Your task to perform on an android device: change text size in settings app Image 0: 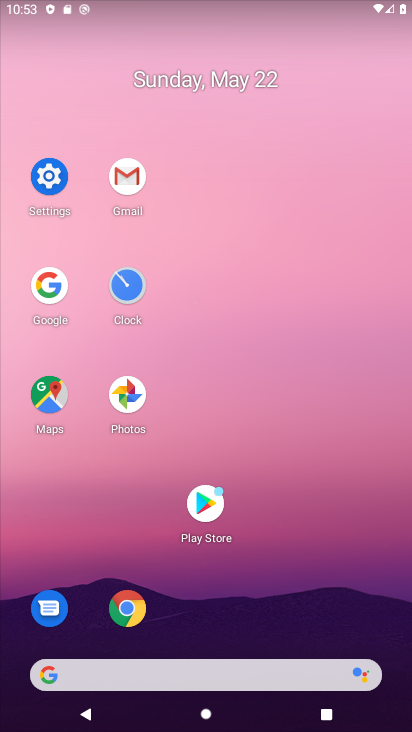
Step 0: click (56, 175)
Your task to perform on an android device: change text size in settings app Image 1: 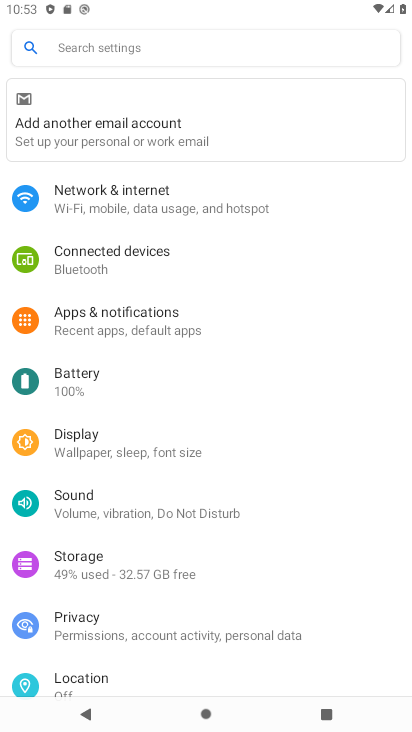
Step 1: click (174, 437)
Your task to perform on an android device: change text size in settings app Image 2: 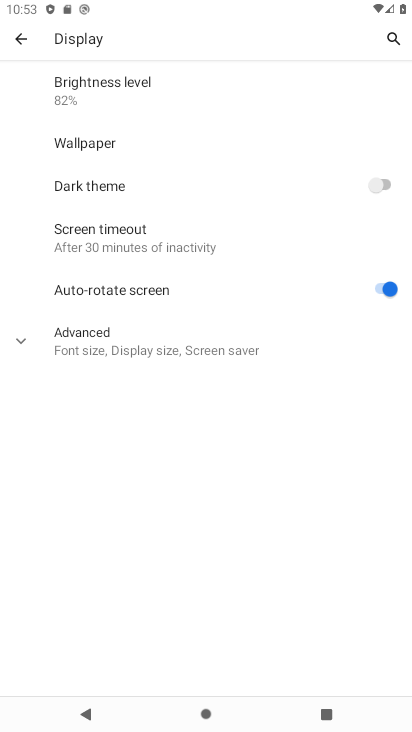
Step 2: click (135, 360)
Your task to perform on an android device: change text size in settings app Image 3: 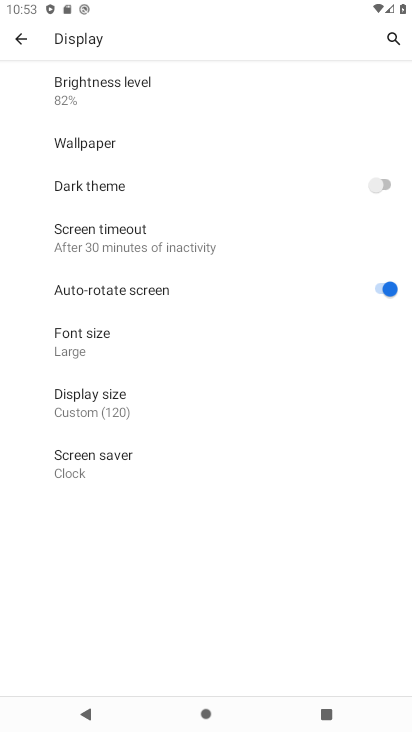
Step 3: click (120, 336)
Your task to perform on an android device: change text size in settings app Image 4: 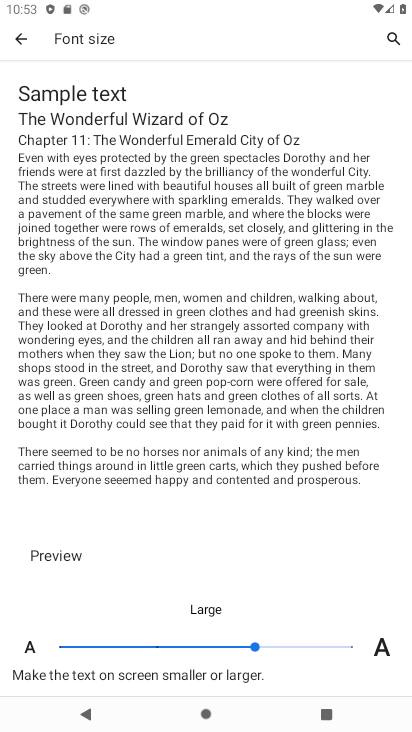
Step 4: click (165, 644)
Your task to perform on an android device: change text size in settings app Image 5: 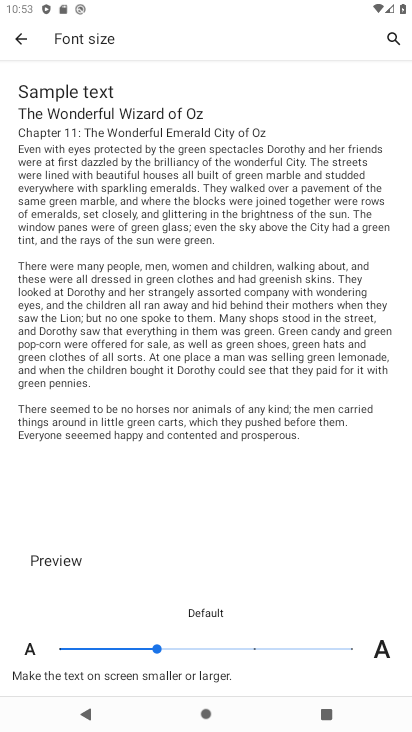
Step 5: task complete